Your task to perform on an android device: stop showing notifications on the lock screen Image 0: 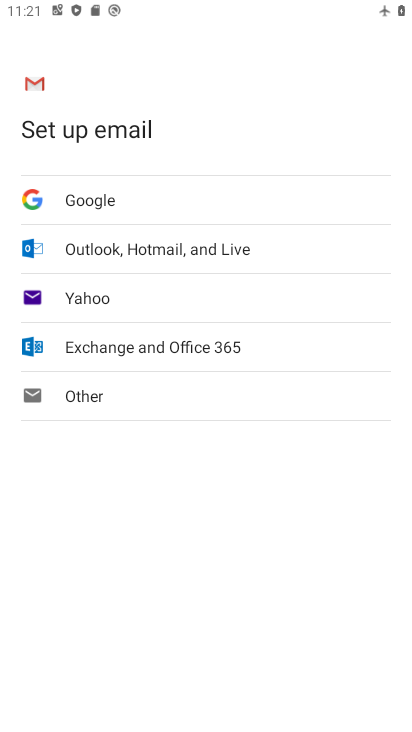
Step 0: press home button
Your task to perform on an android device: stop showing notifications on the lock screen Image 1: 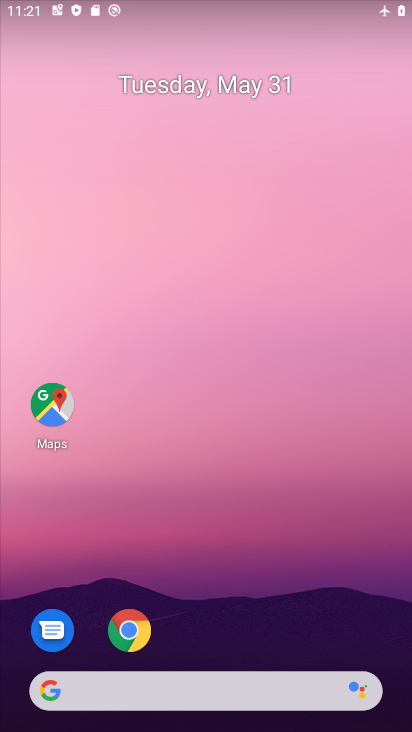
Step 1: drag from (198, 679) to (301, 130)
Your task to perform on an android device: stop showing notifications on the lock screen Image 2: 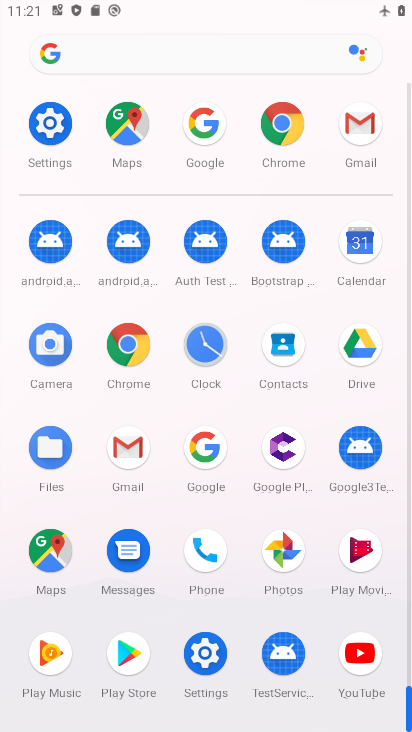
Step 2: click (46, 134)
Your task to perform on an android device: stop showing notifications on the lock screen Image 3: 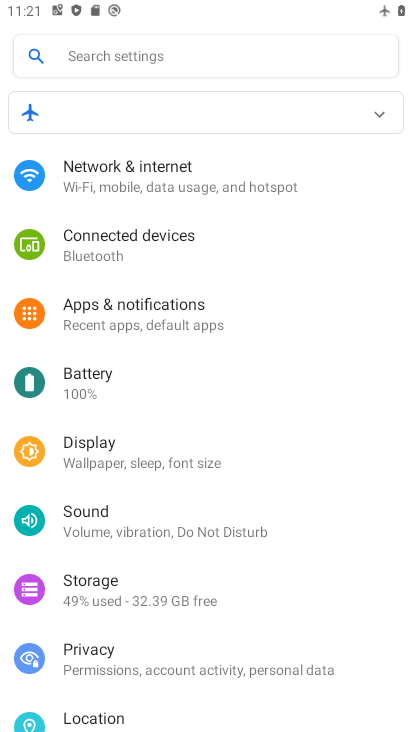
Step 3: click (179, 299)
Your task to perform on an android device: stop showing notifications on the lock screen Image 4: 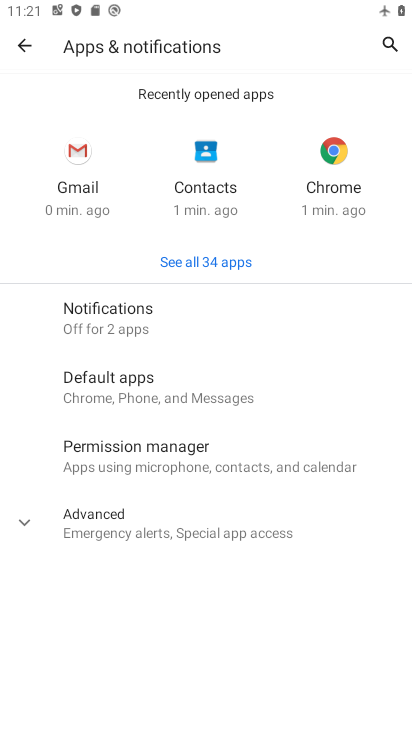
Step 4: click (123, 536)
Your task to perform on an android device: stop showing notifications on the lock screen Image 5: 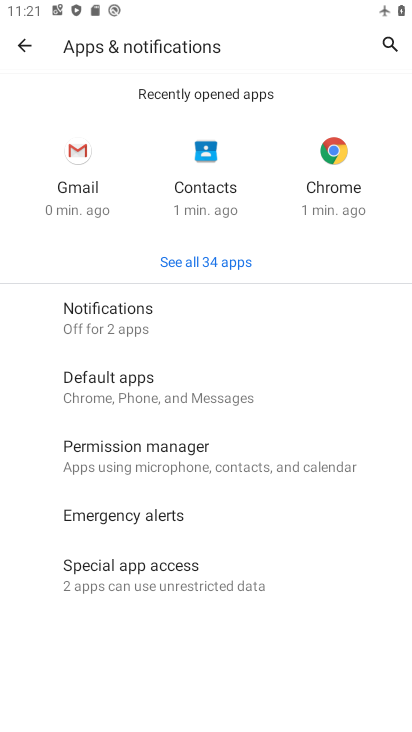
Step 5: click (176, 314)
Your task to perform on an android device: stop showing notifications on the lock screen Image 6: 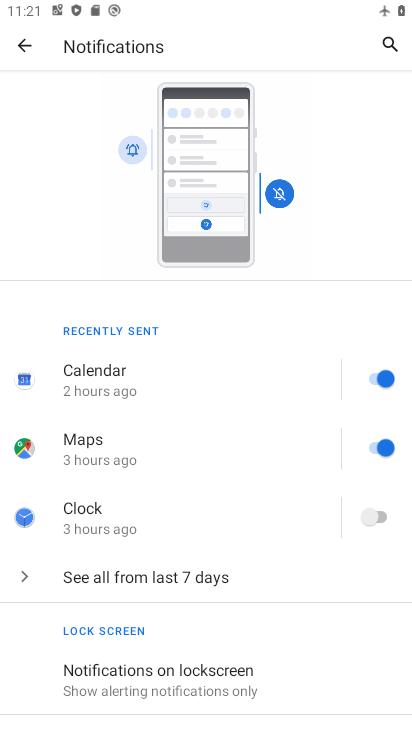
Step 6: click (198, 661)
Your task to perform on an android device: stop showing notifications on the lock screen Image 7: 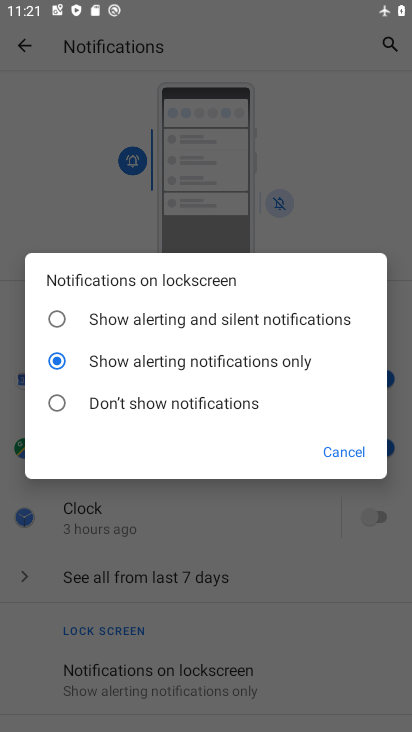
Step 7: click (239, 422)
Your task to perform on an android device: stop showing notifications on the lock screen Image 8: 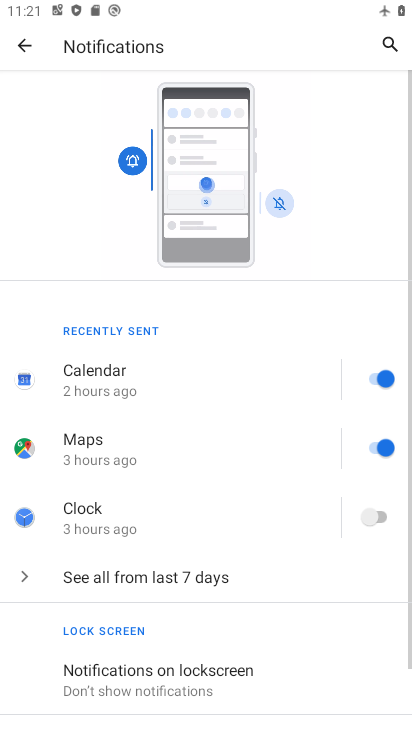
Step 8: task complete